Your task to perform on an android device: change text size in settings app Image 0: 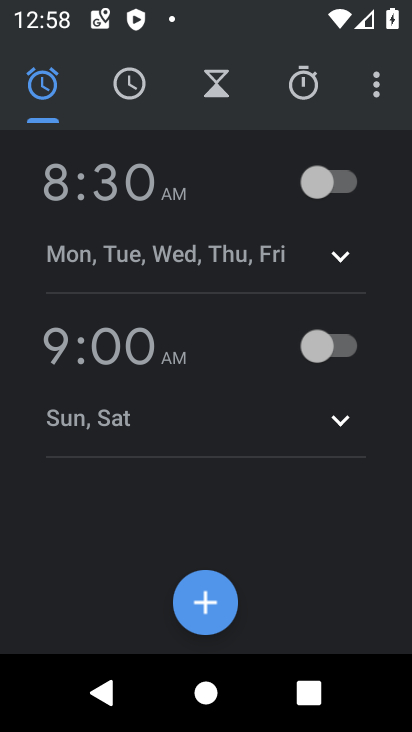
Step 0: press home button
Your task to perform on an android device: change text size in settings app Image 1: 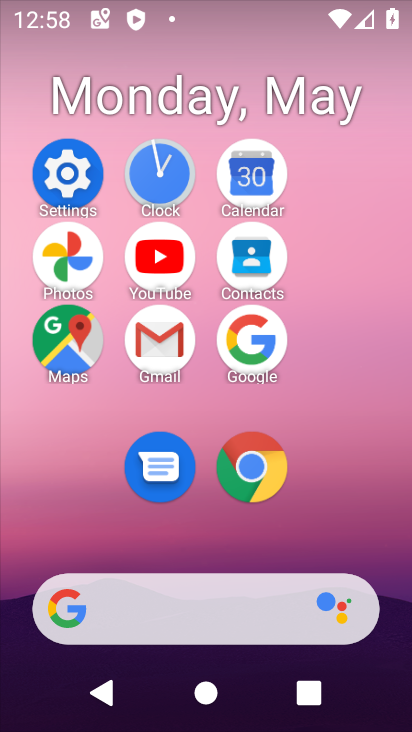
Step 1: click (50, 167)
Your task to perform on an android device: change text size in settings app Image 2: 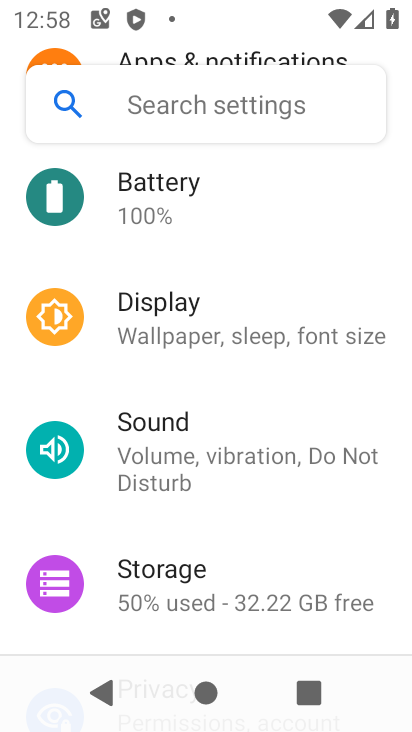
Step 2: click (294, 330)
Your task to perform on an android device: change text size in settings app Image 3: 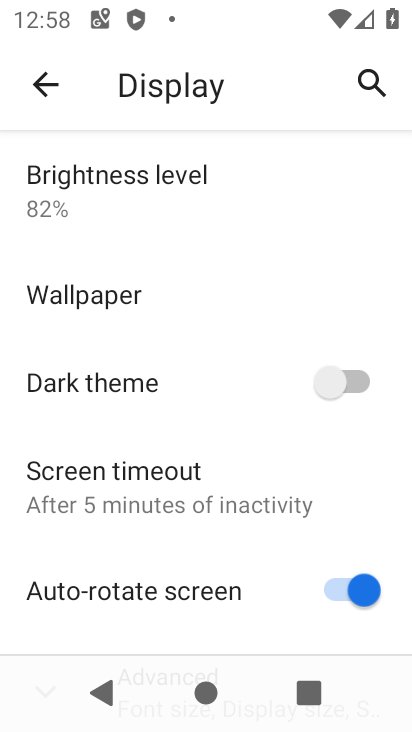
Step 3: drag from (211, 594) to (155, 188)
Your task to perform on an android device: change text size in settings app Image 4: 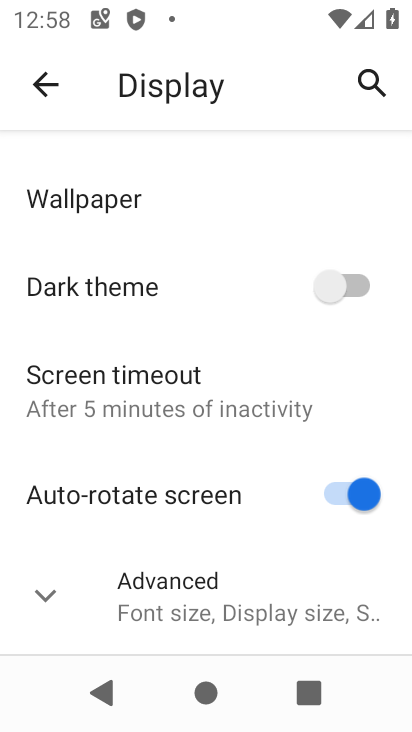
Step 4: click (231, 596)
Your task to perform on an android device: change text size in settings app Image 5: 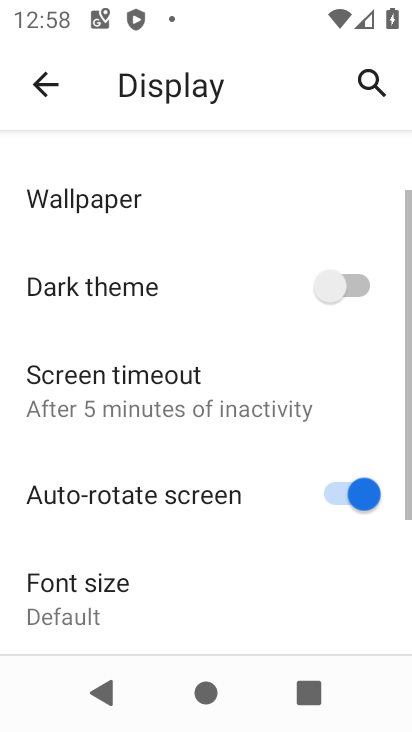
Step 5: drag from (231, 596) to (205, 249)
Your task to perform on an android device: change text size in settings app Image 6: 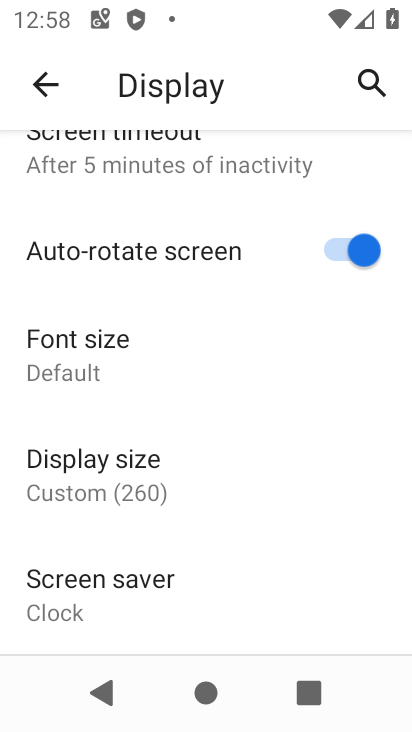
Step 6: click (160, 345)
Your task to perform on an android device: change text size in settings app Image 7: 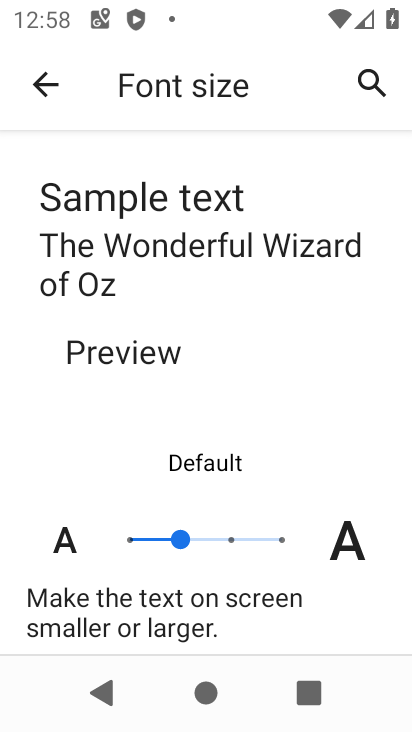
Step 7: click (231, 537)
Your task to perform on an android device: change text size in settings app Image 8: 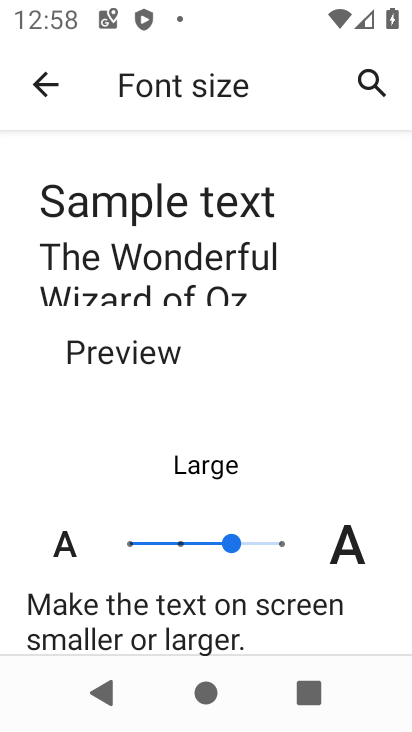
Step 8: task complete